Your task to perform on an android device: Open Youtube and go to the subscriptions tab Image 0: 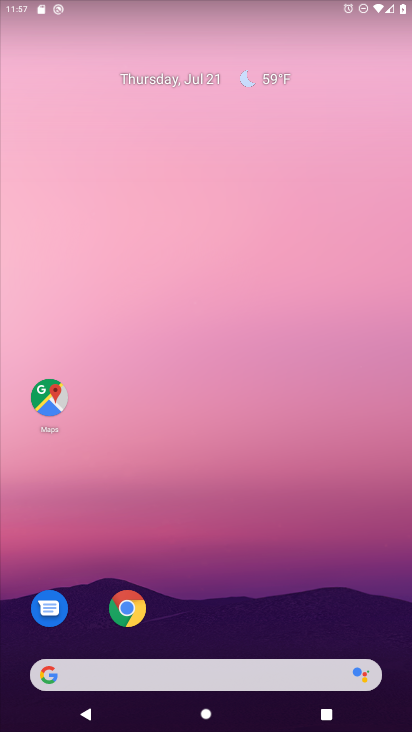
Step 0: drag from (330, 531) to (237, 0)
Your task to perform on an android device: Open Youtube and go to the subscriptions tab Image 1: 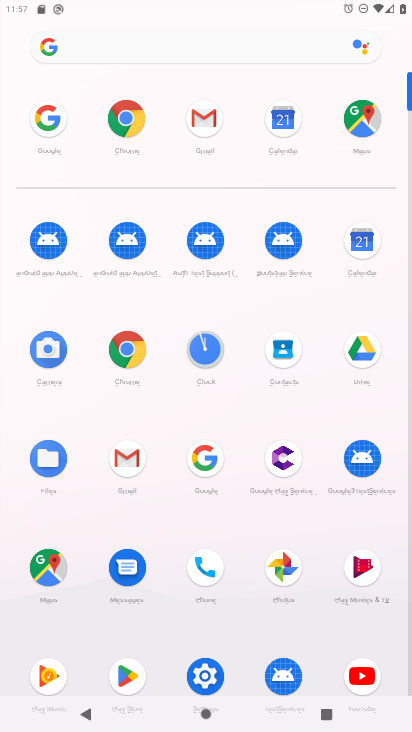
Step 1: click (350, 667)
Your task to perform on an android device: Open Youtube and go to the subscriptions tab Image 2: 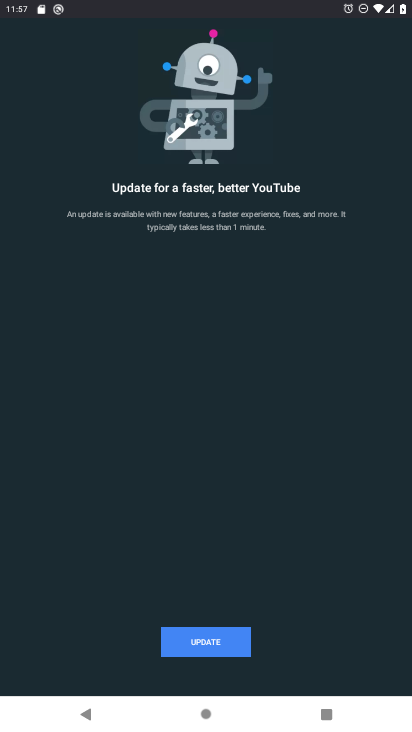
Step 2: click (193, 638)
Your task to perform on an android device: Open Youtube and go to the subscriptions tab Image 3: 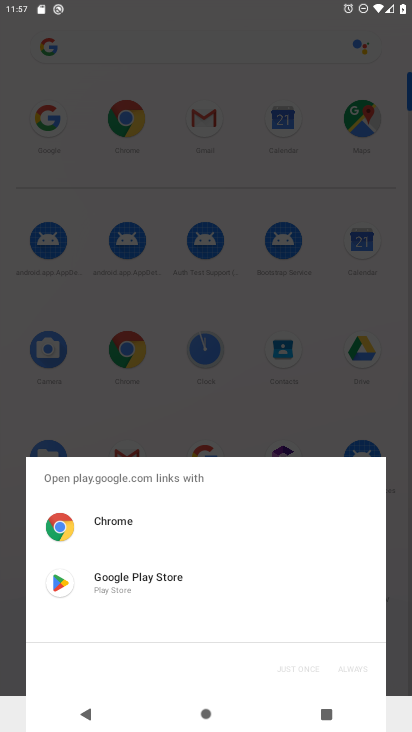
Step 3: click (115, 584)
Your task to perform on an android device: Open Youtube and go to the subscriptions tab Image 4: 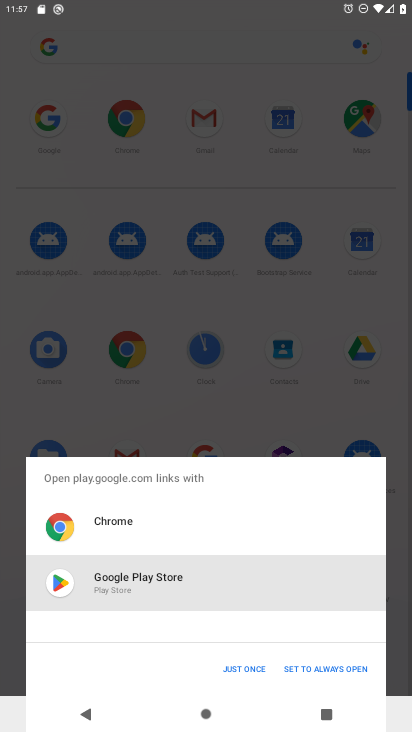
Step 4: click (239, 670)
Your task to perform on an android device: Open Youtube and go to the subscriptions tab Image 5: 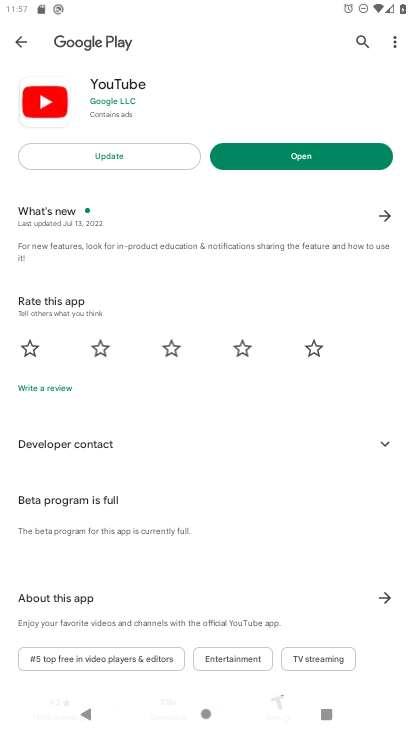
Step 5: click (107, 158)
Your task to perform on an android device: Open Youtube and go to the subscriptions tab Image 6: 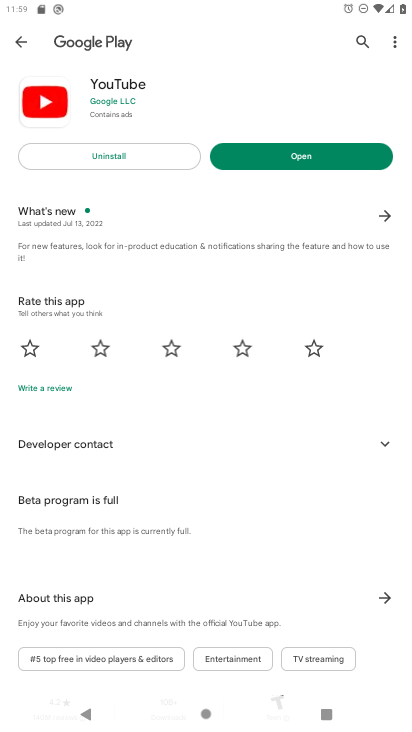
Step 6: click (254, 169)
Your task to perform on an android device: Open Youtube and go to the subscriptions tab Image 7: 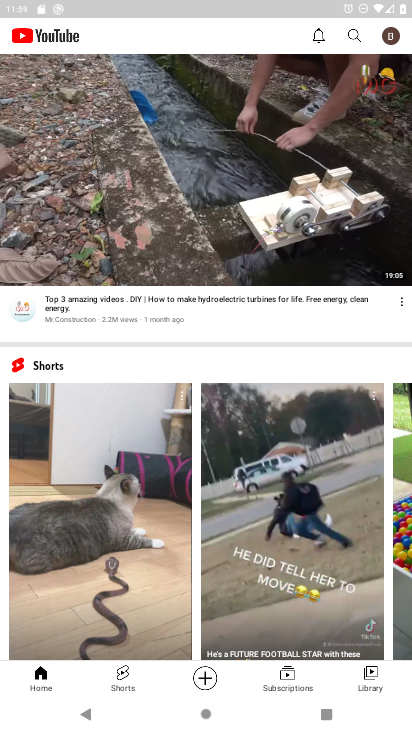
Step 7: click (292, 665)
Your task to perform on an android device: Open Youtube and go to the subscriptions tab Image 8: 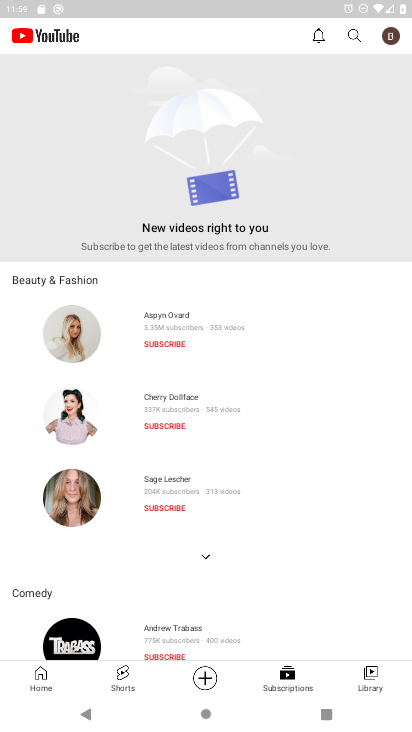
Step 8: task complete